Your task to perform on an android device: change keyboard looks Image 0: 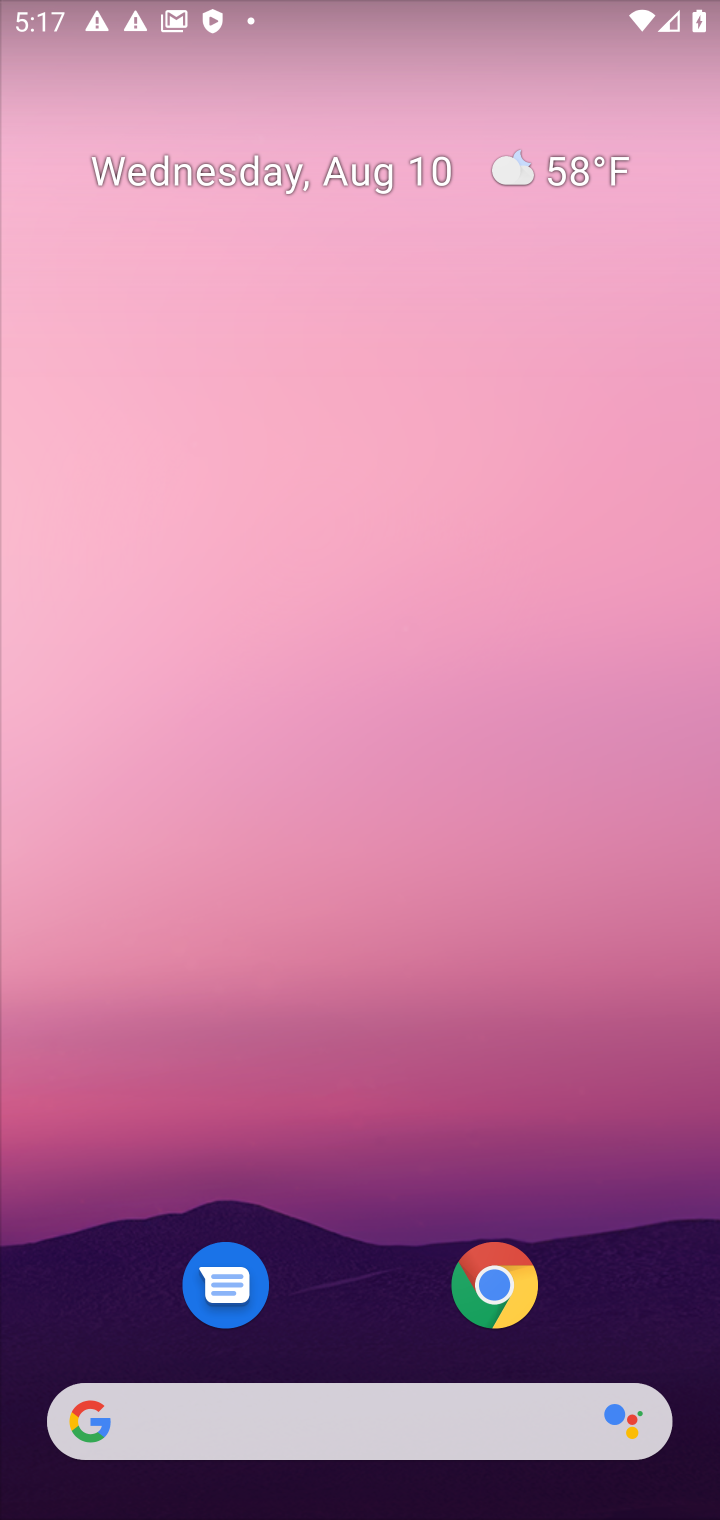
Step 0: press home button
Your task to perform on an android device: change keyboard looks Image 1: 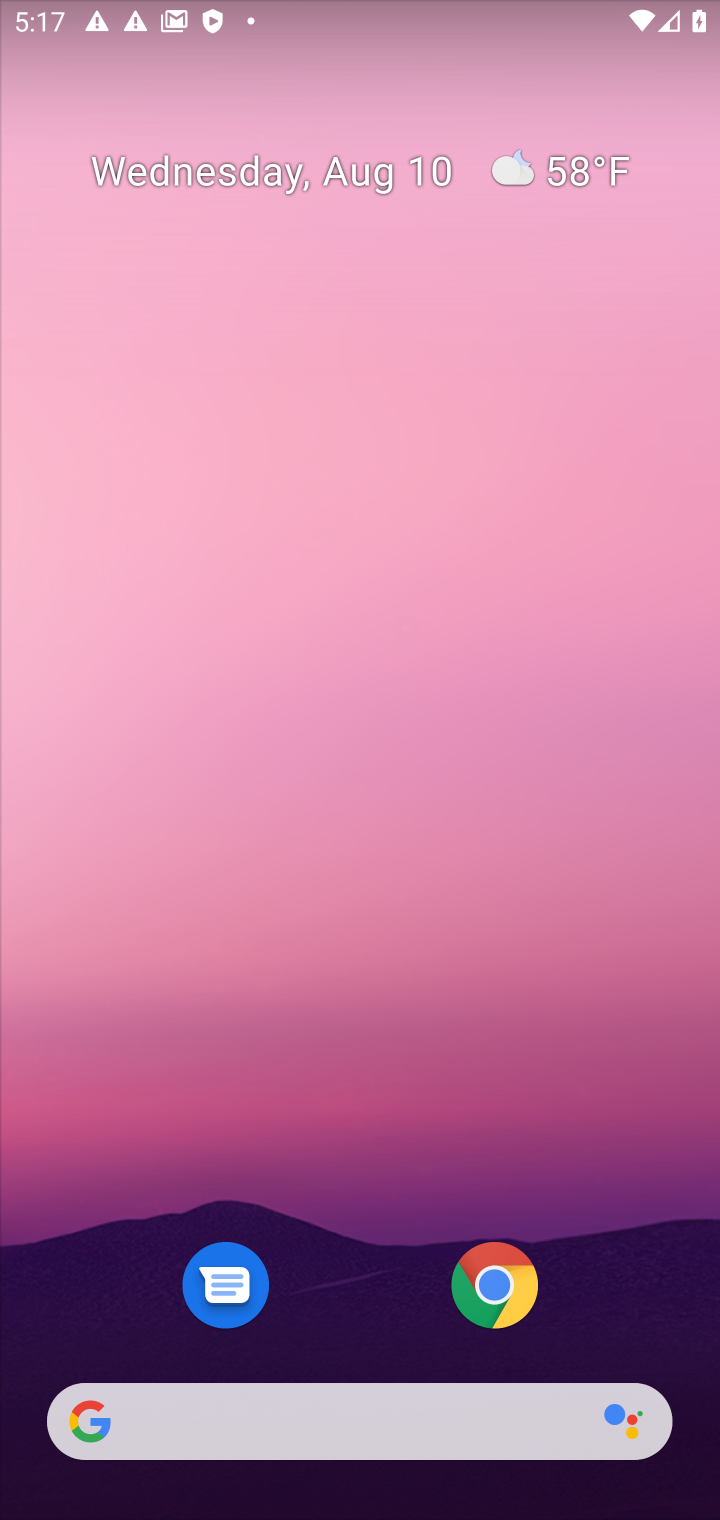
Step 1: drag from (378, 1315) to (362, 26)
Your task to perform on an android device: change keyboard looks Image 2: 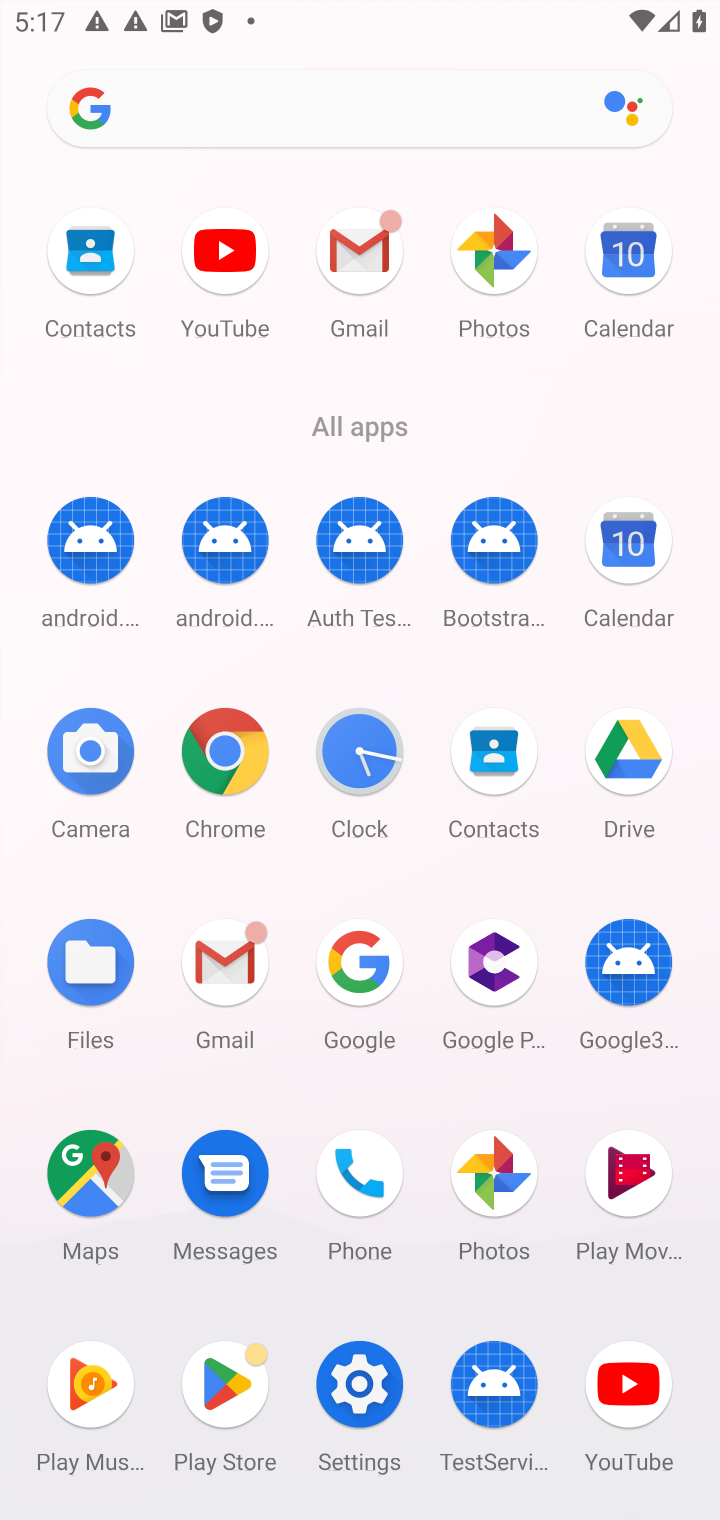
Step 2: click (333, 1400)
Your task to perform on an android device: change keyboard looks Image 3: 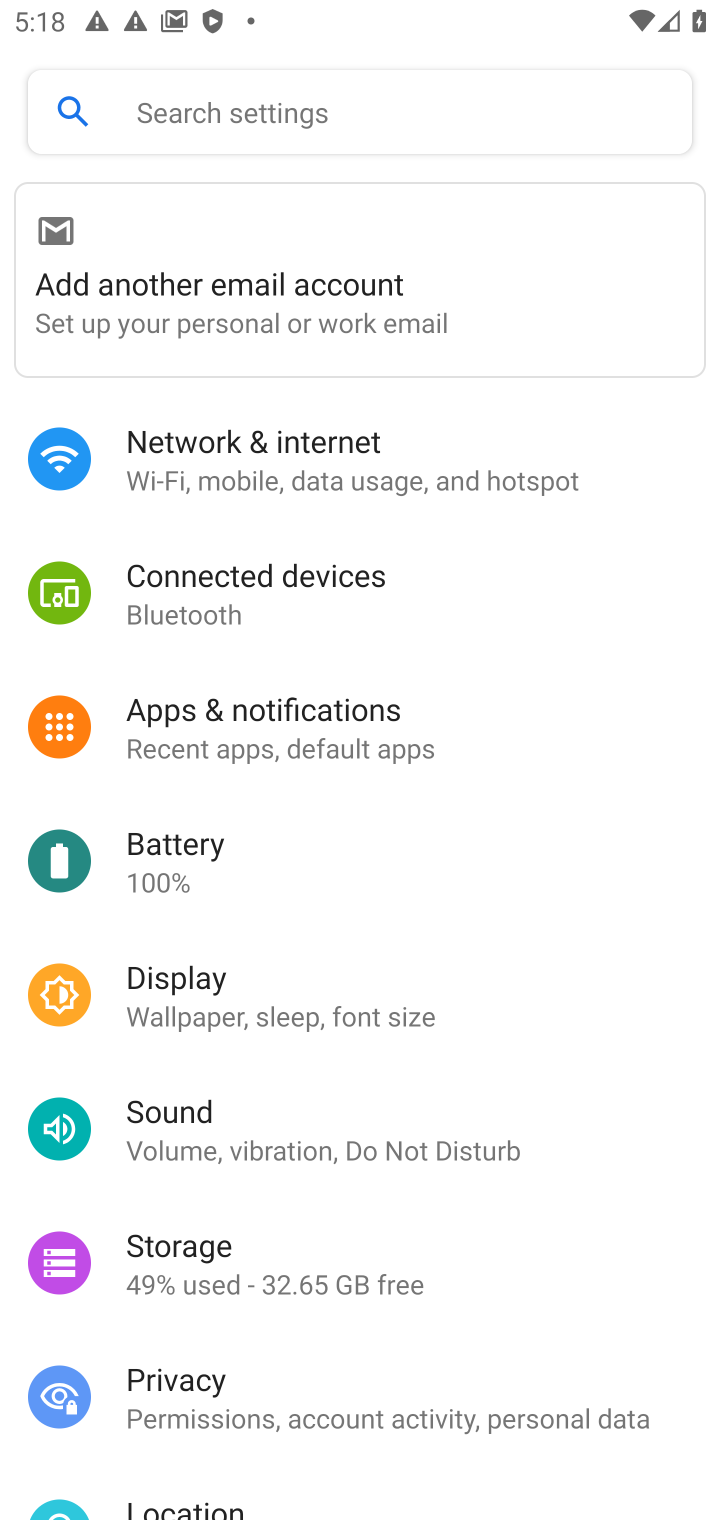
Step 3: drag from (341, 1290) to (435, 1046)
Your task to perform on an android device: change keyboard looks Image 4: 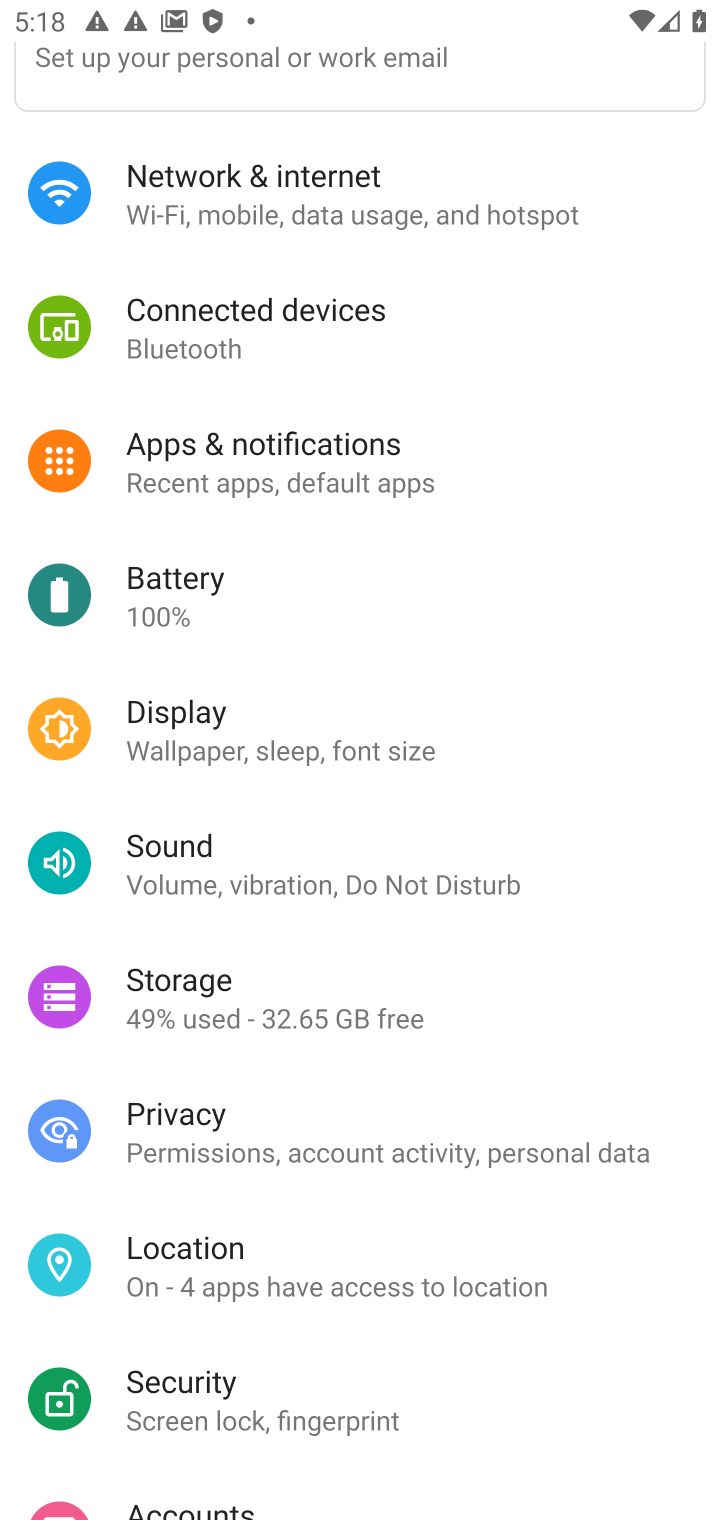
Step 4: drag from (283, 1257) to (218, 231)
Your task to perform on an android device: change keyboard looks Image 5: 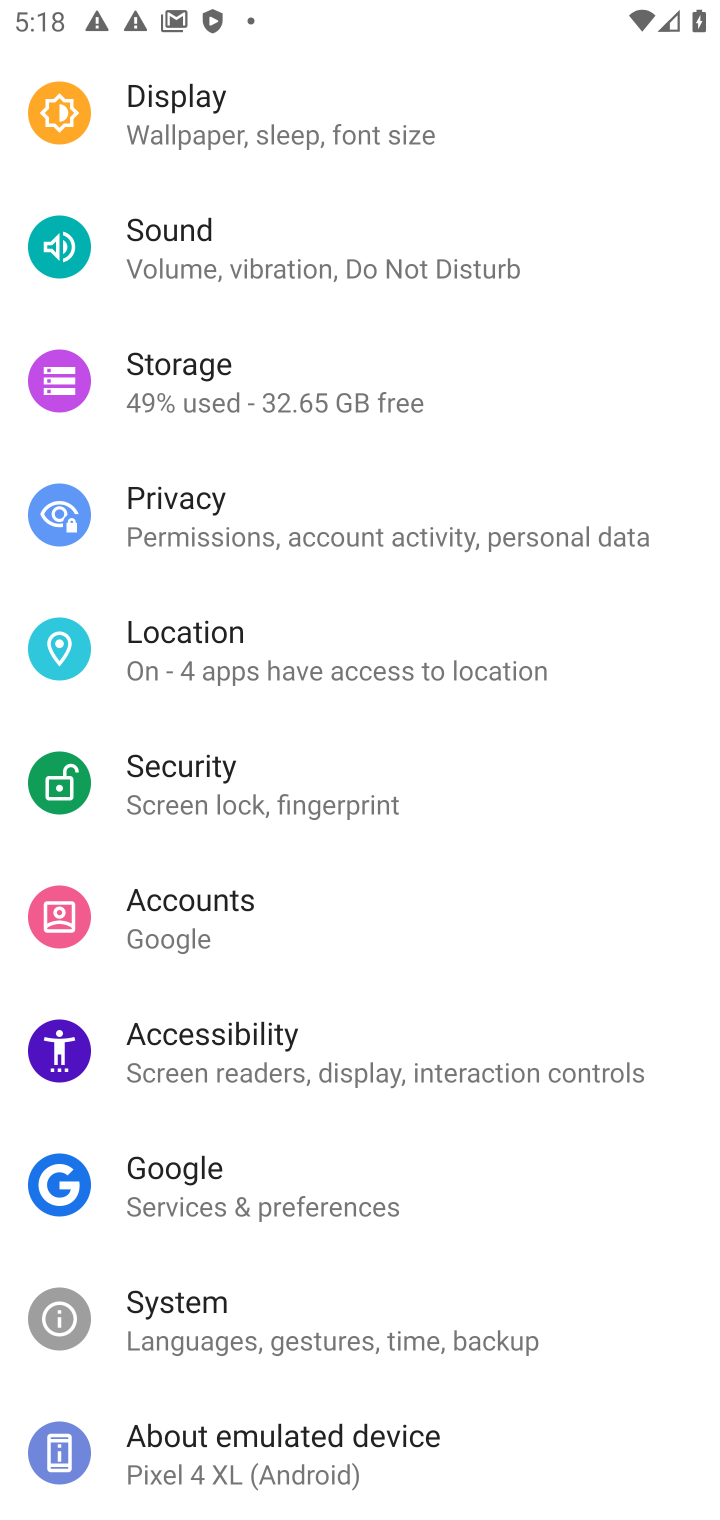
Step 5: click (44, 1346)
Your task to perform on an android device: change keyboard looks Image 6: 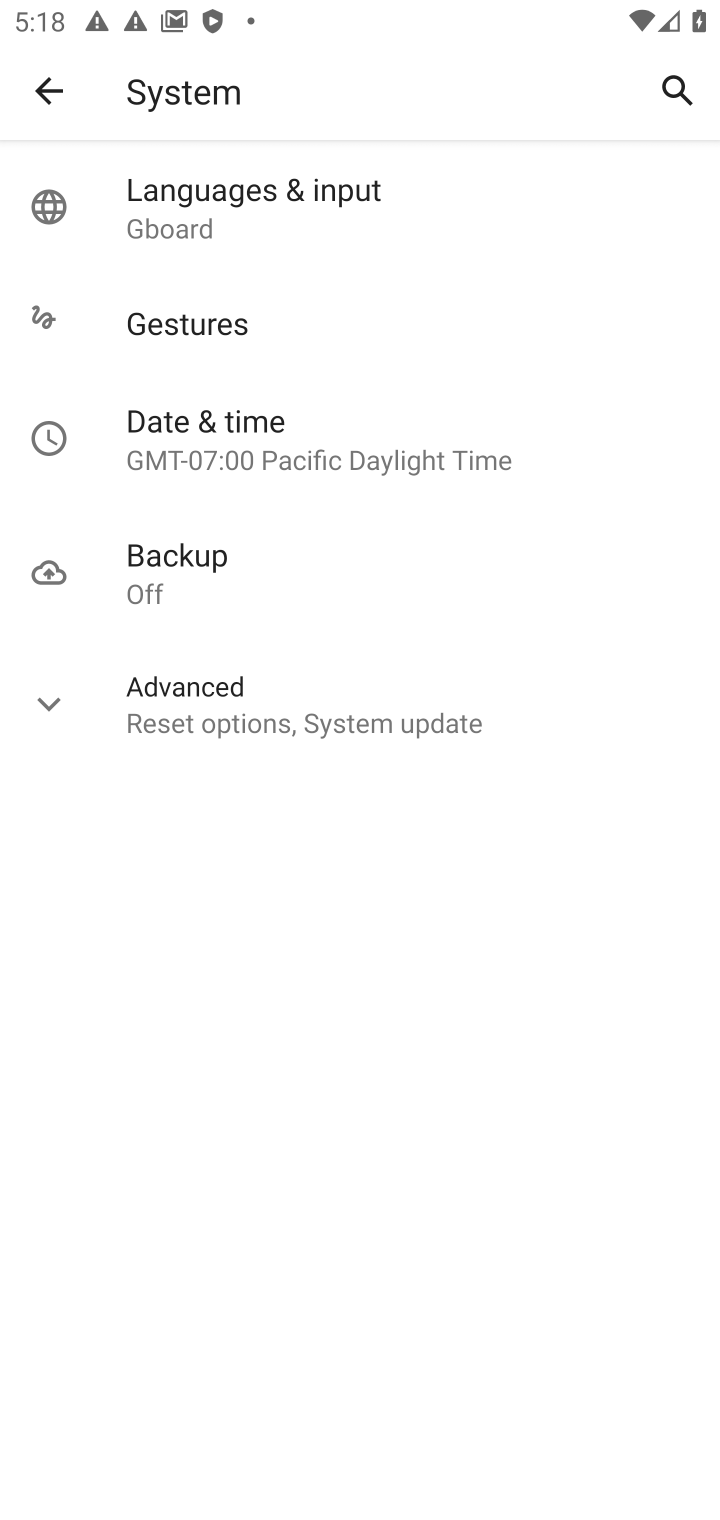
Step 6: click (174, 196)
Your task to perform on an android device: change keyboard looks Image 7: 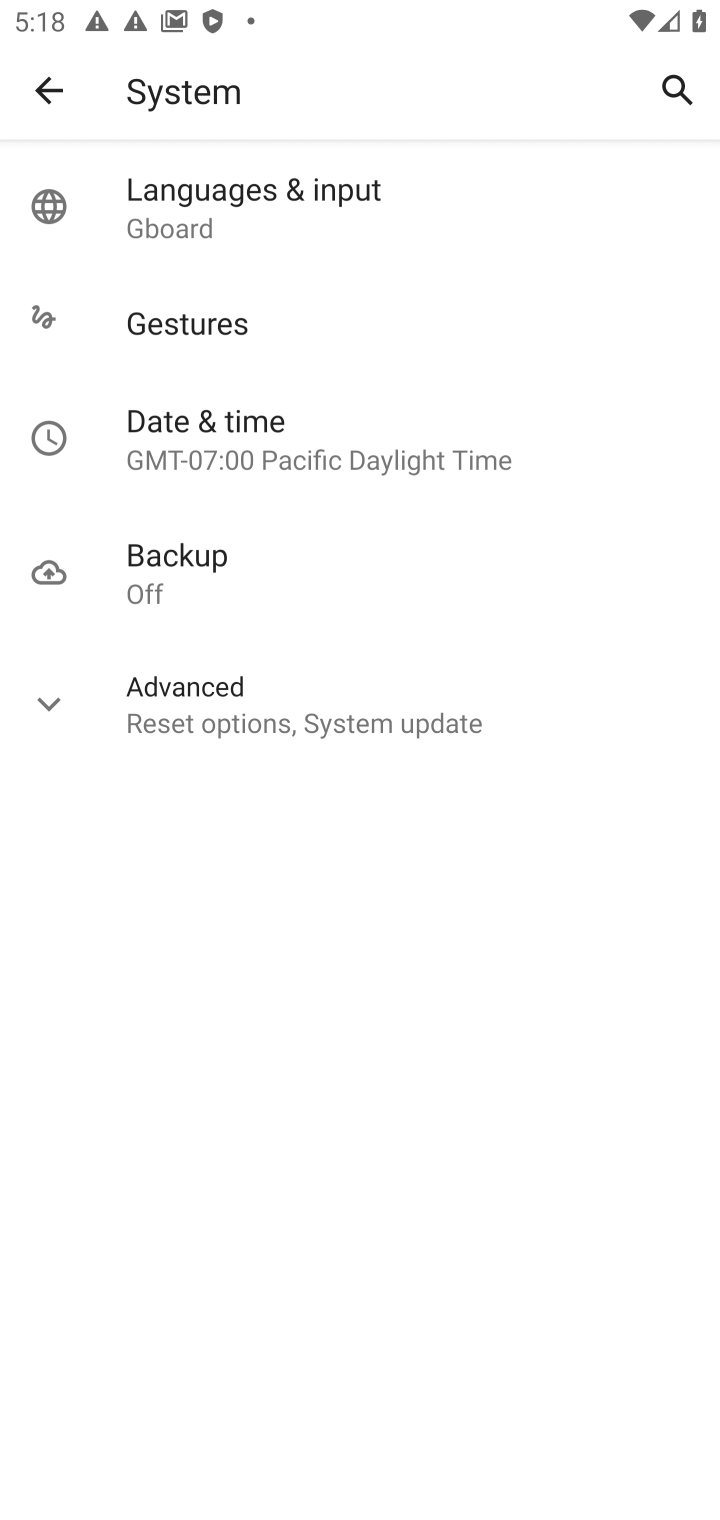
Step 7: click (222, 425)
Your task to perform on an android device: change keyboard looks Image 8: 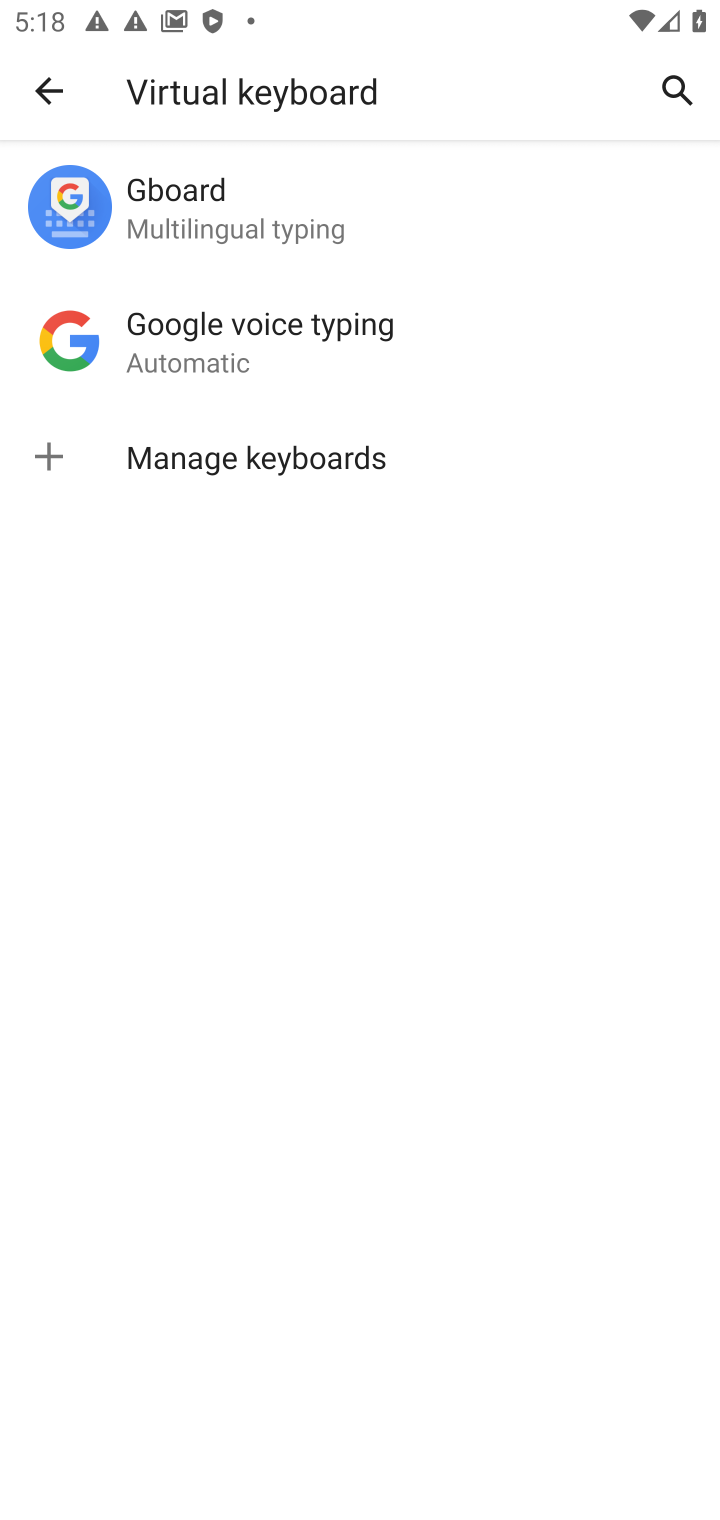
Step 8: click (138, 241)
Your task to perform on an android device: change keyboard looks Image 9: 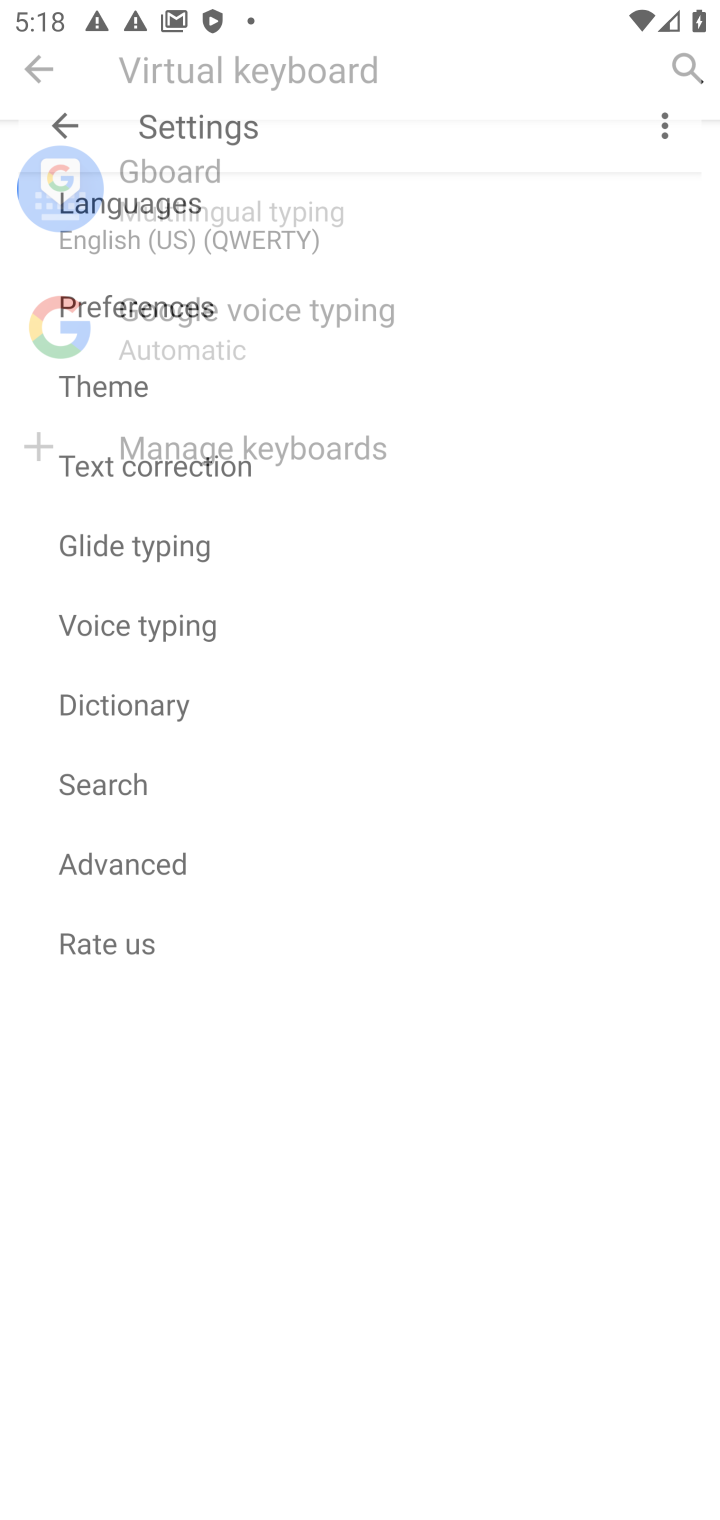
Step 9: click (172, 346)
Your task to perform on an android device: change keyboard looks Image 10: 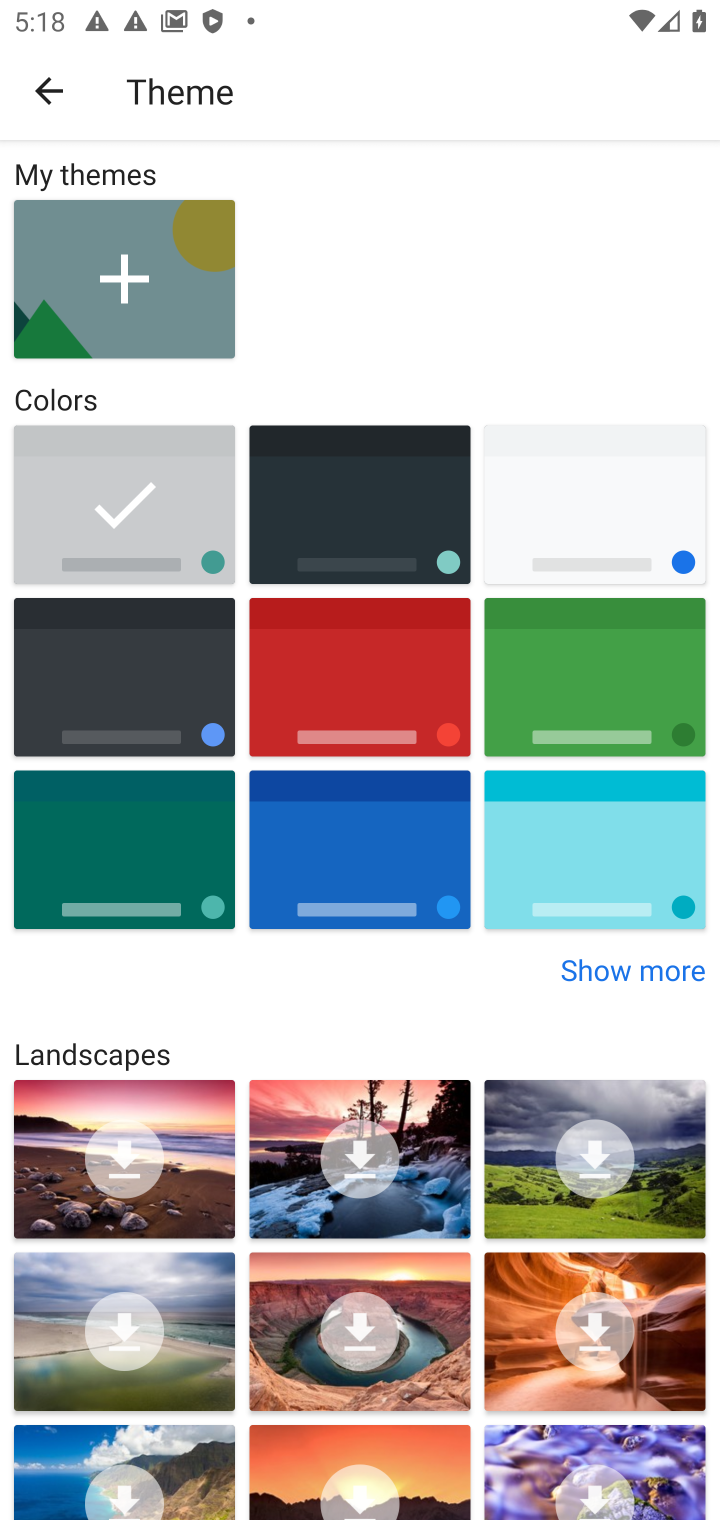
Step 10: click (130, 698)
Your task to perform on an android device: change keyboard looks Image 11: 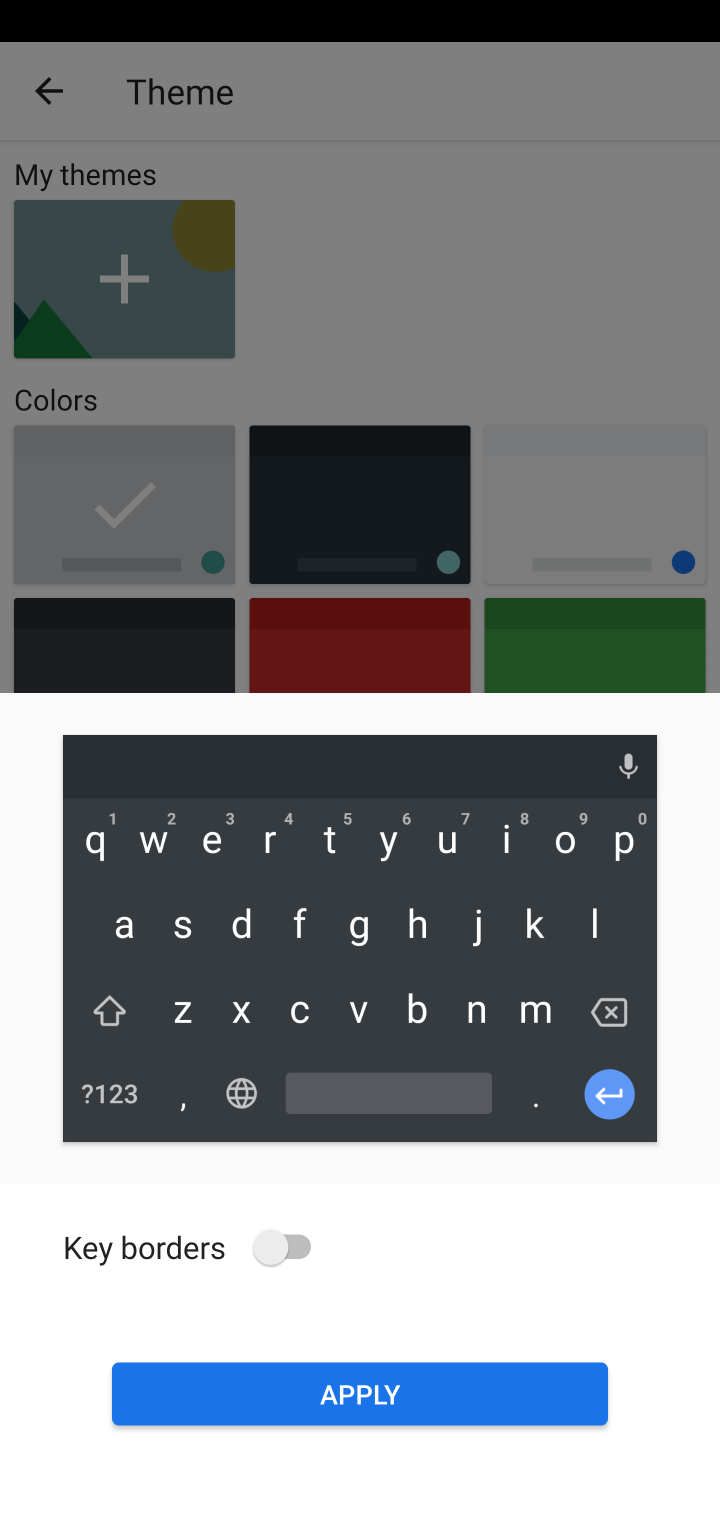
Step 11: click (362, 545)
Your task to perform on an android device: change keyboard looks Image 12: 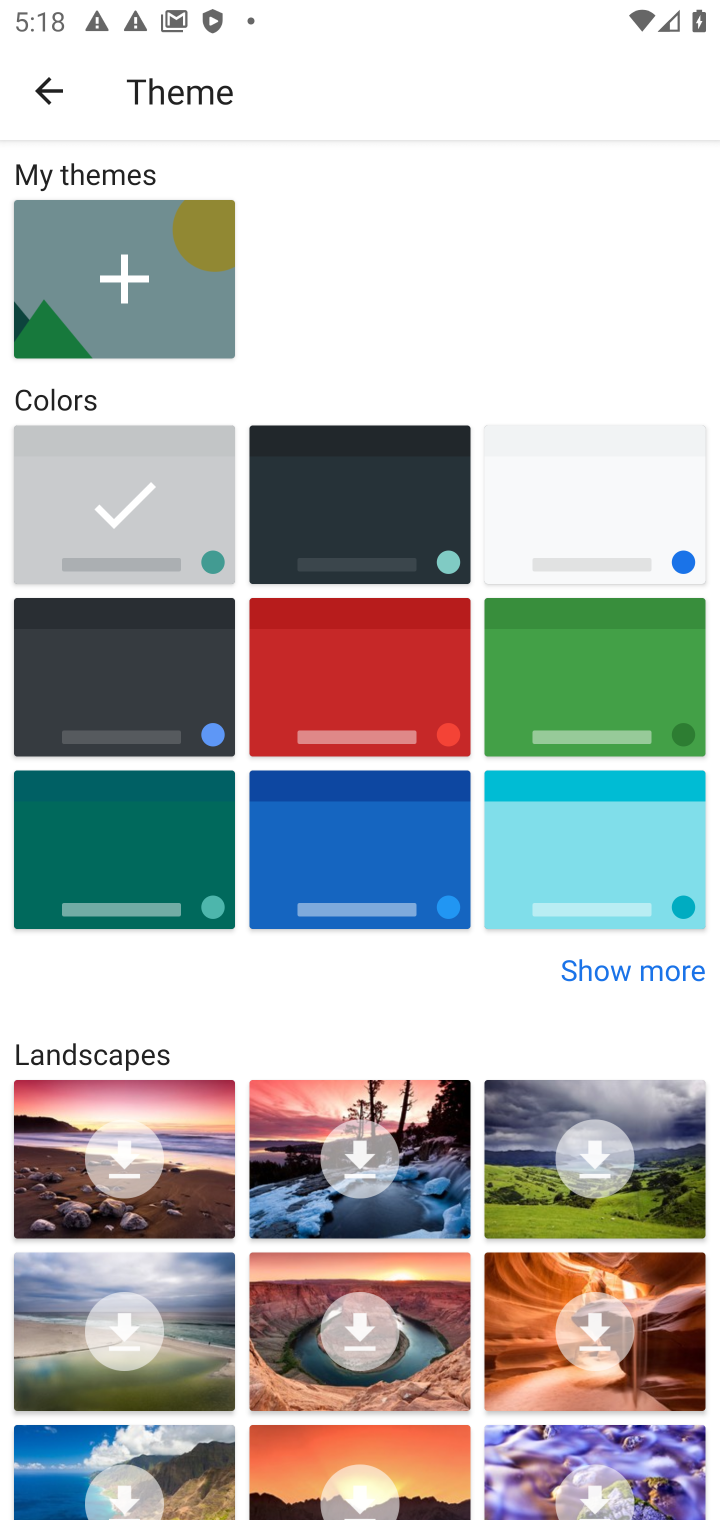
Step 12: click (565, 706)
Your task to perform on an android device: change keyboard looks Image 13: 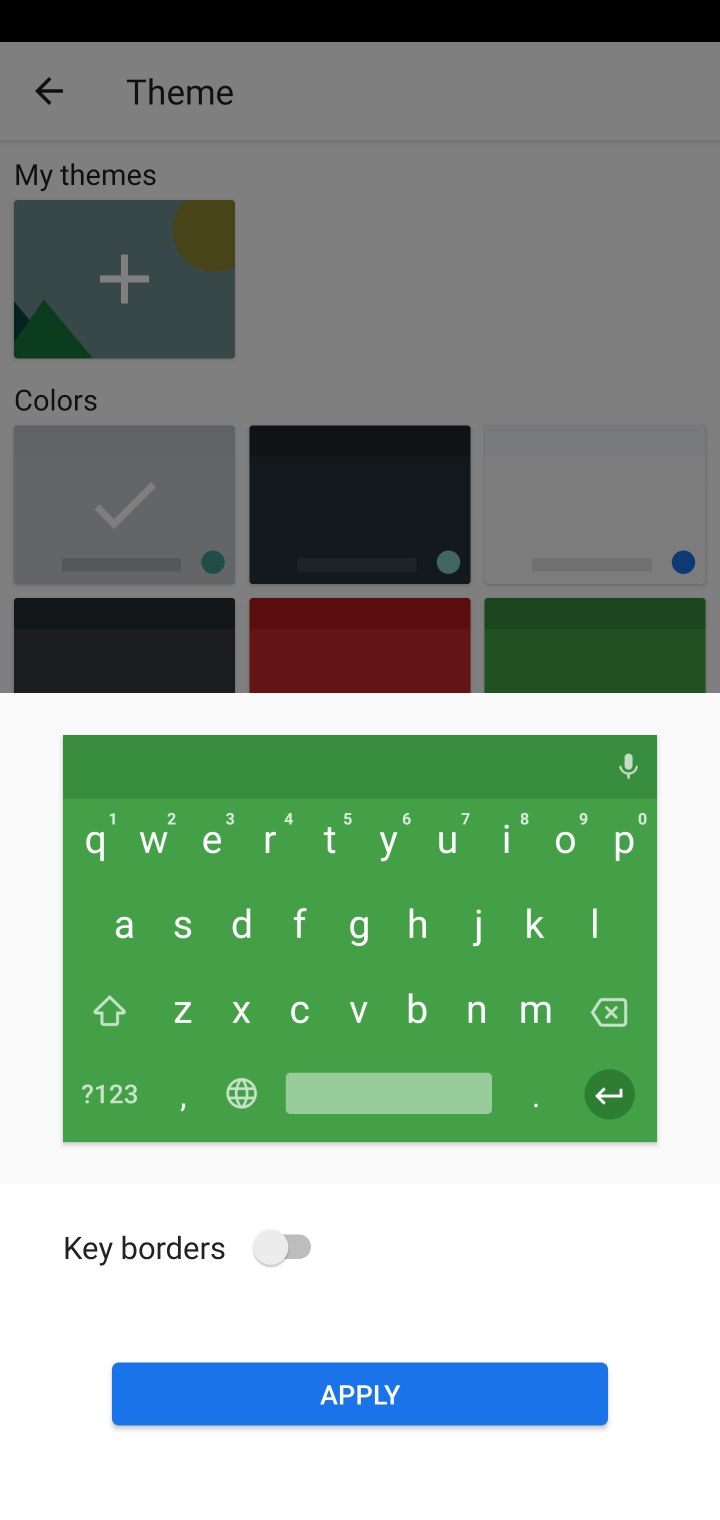
Step 13: click (292, 1245)
Your task to perform on an android device: change keyboard looks Image 14: 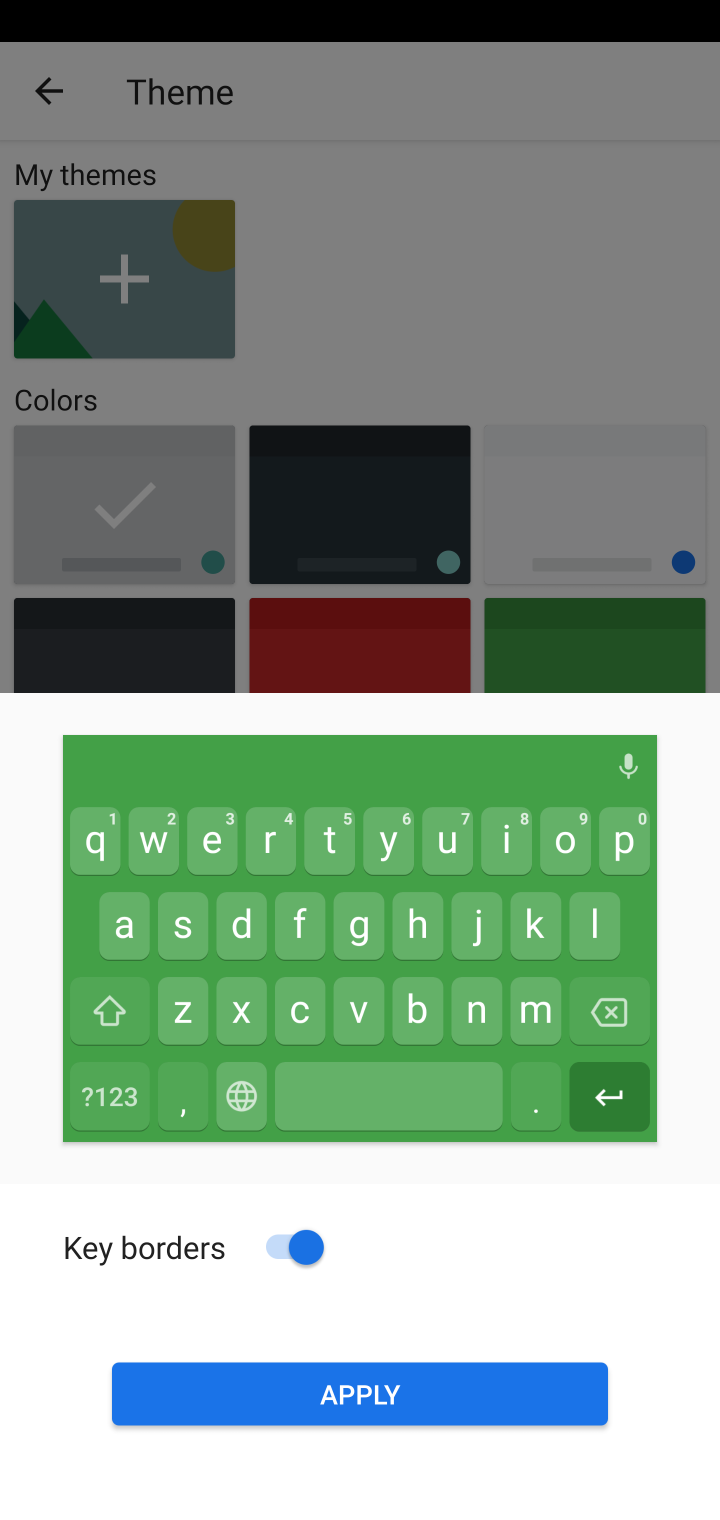
Step 14: click (319, 1409)
Your task to perform on an android device: change keyboard looks Image 15: 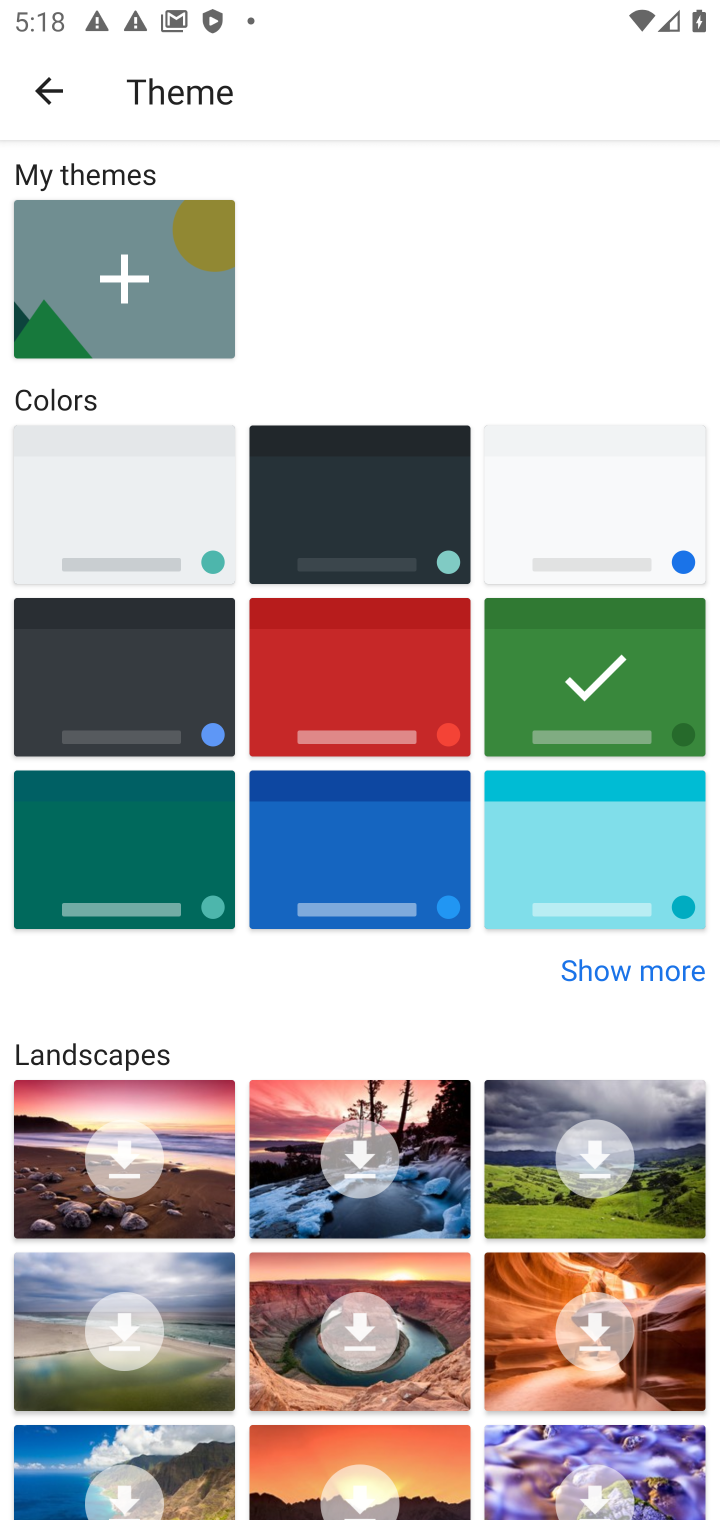
Step 15: task complete